Your task to perform on an android device: Toggle the flashlight Image 0: 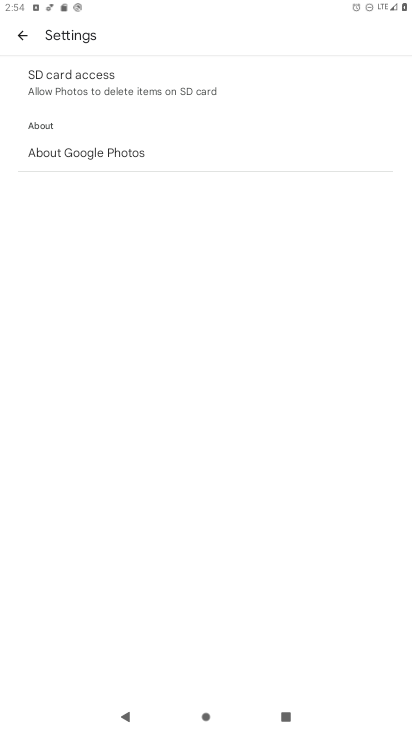
Step 0: press home button
Your task to perform on an android device: Toggle the flashlight Image 1: 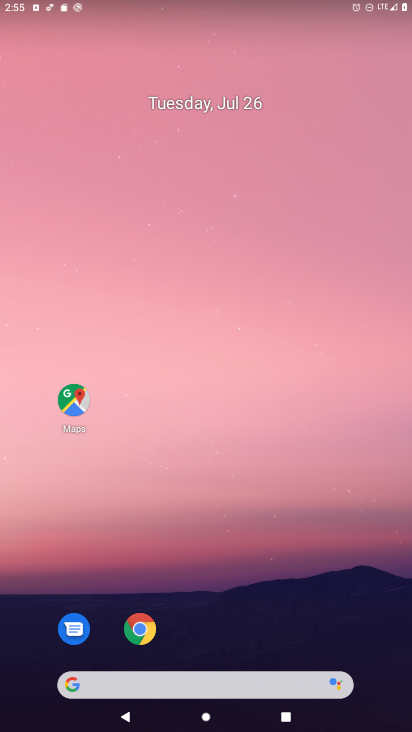
Step 1: drag from (213, 19) to (217, 345)
Your task to perform on an android device: Toggle the flashlight Image 2: 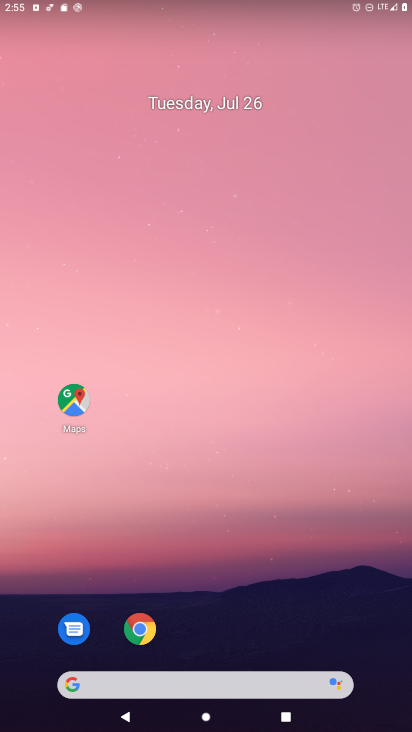
Step 2: drag from (197, 12) to (209, 685)
Your task to perform on an android device: Toggle the flashlight Image 3: 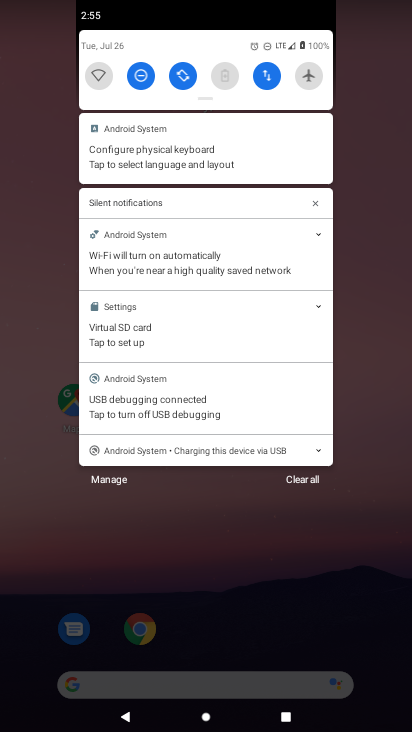
Step 3: drag from (203, 96) to (189, 297)
Your task to perform on an android device: Toggle the flashlight Image 4: 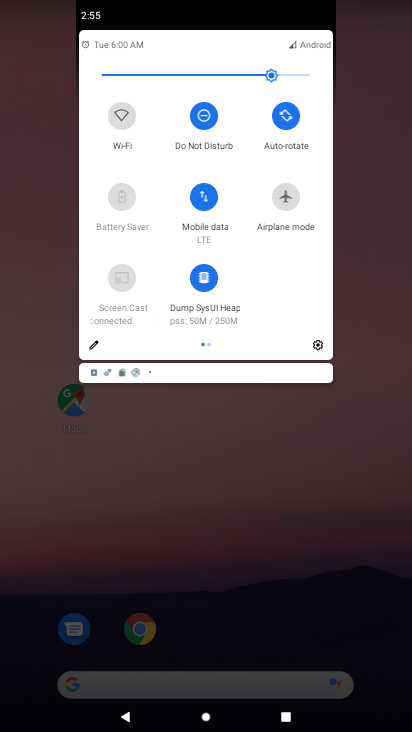
Step 4: click (94, 341)
Your task to perform on an android device: Toggle the flashlight Image 5: 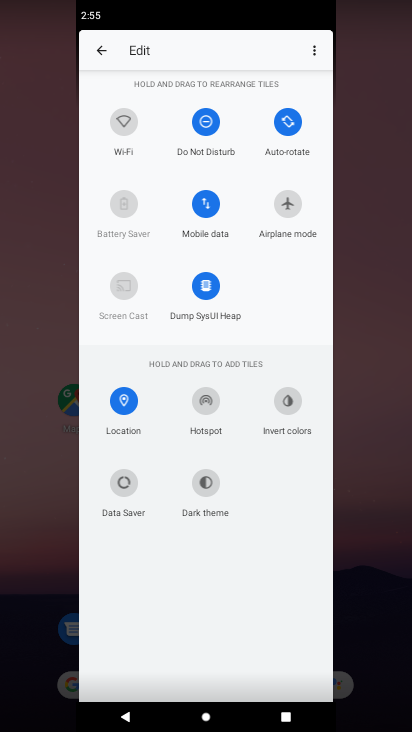
Step 5: task complete